Your task to perform on an android device: add a contact in the contacts app Image 0: 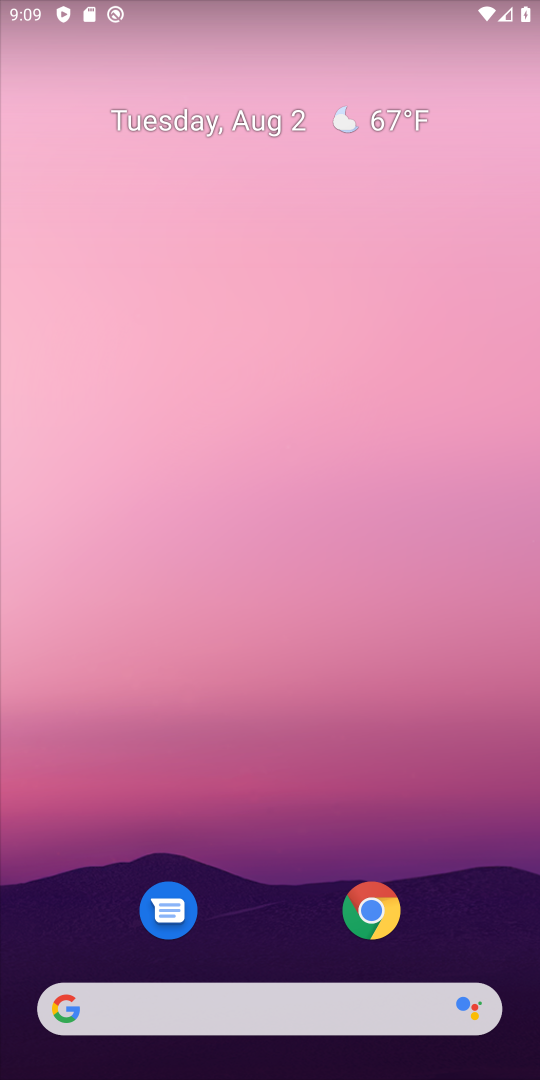
Step 0: drag from (273, 889) to (325, 279)
Your task to perform on an android device: add a contact in the contacts app Image 1: 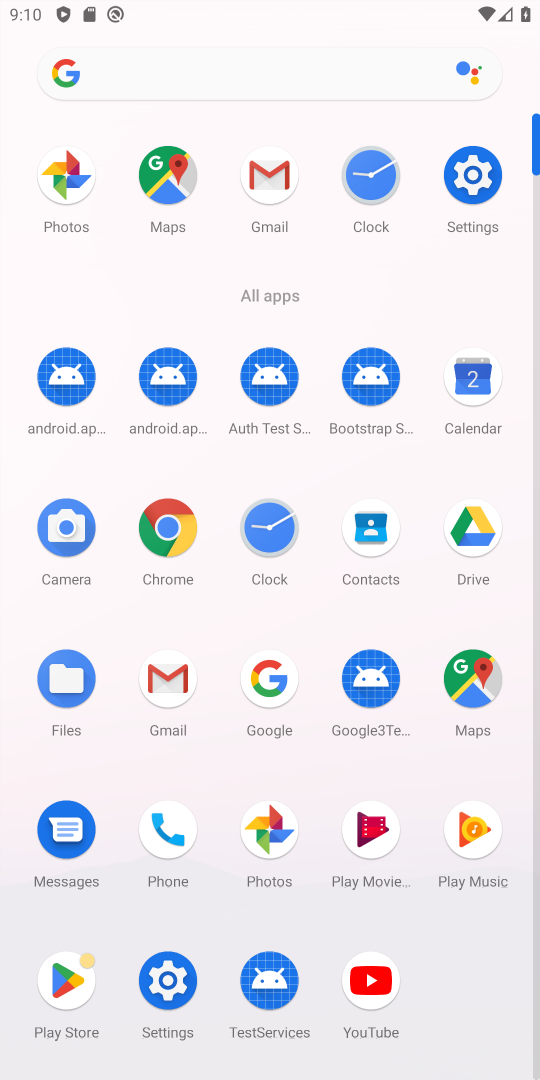
Step 1: click (169, 815)
Your task to perform on an android device: add a contact in the contacts app Image 2: 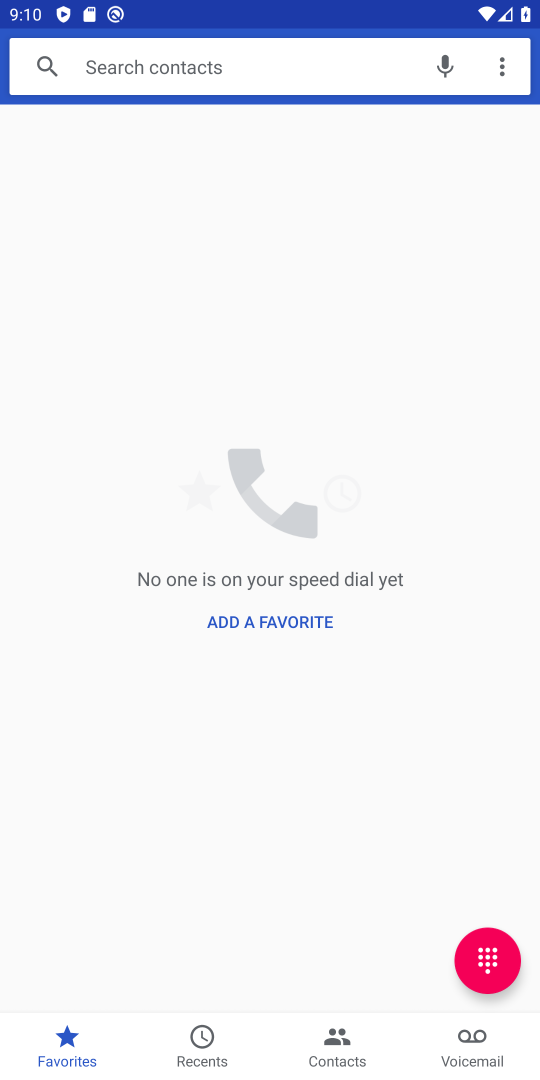
Step 2: click (255, 632)
Your task to perform on an android device: add a contact in the contacts app Image 3: 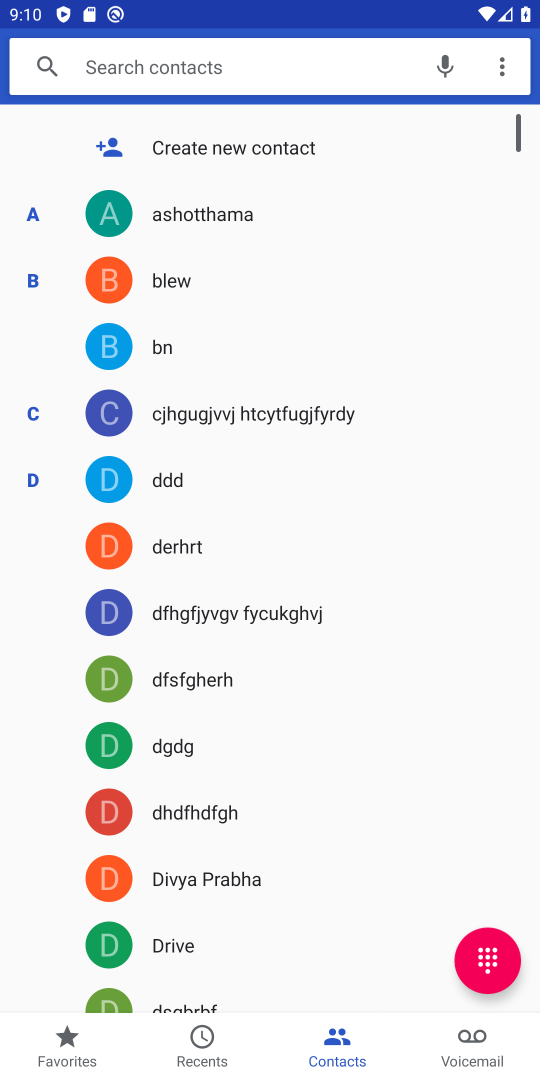
Step 3: click (181, 148)
Your task to perform on an android device: add a contact in the contacts app Image 4: 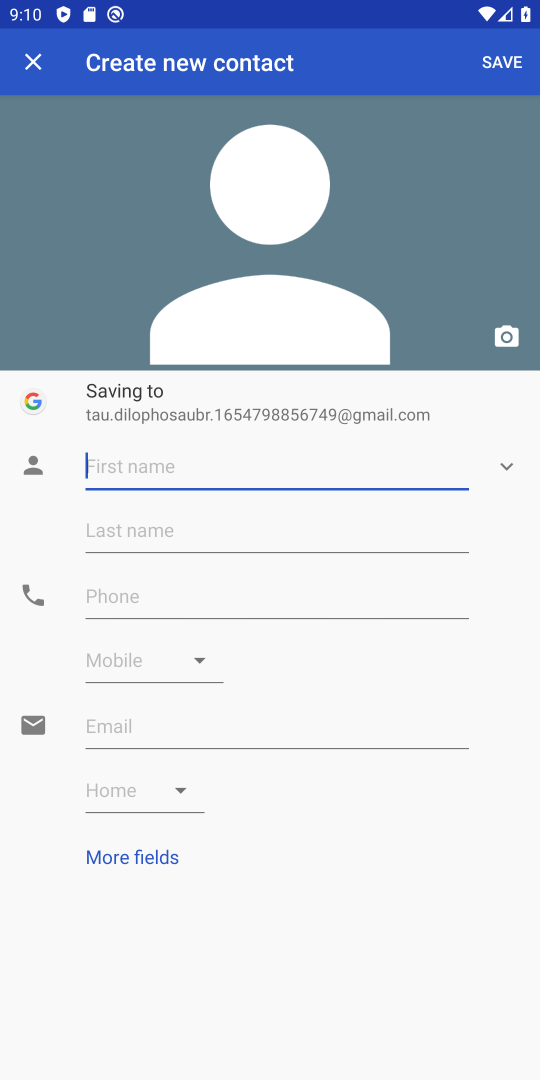
Step 4: click (196, 463)
Your task to perform on an android device: add a contact in the contacts app Image 5: 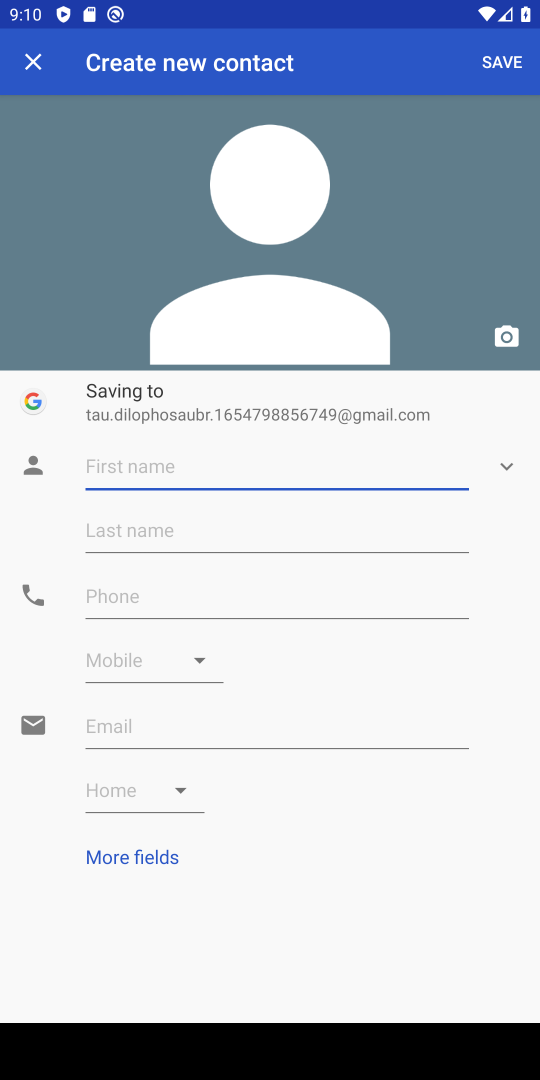
Step 5: type "hghghghghghgh "
Your task to perform on an android device: add a contact in the contacts app Image 6: 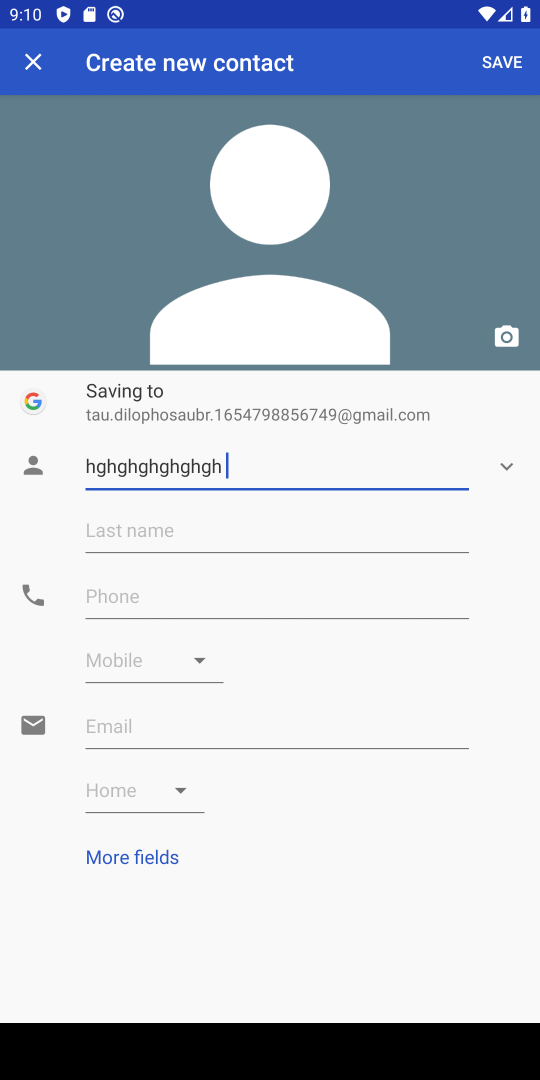
Step 6: click (120, 585)
Your task to perform on an android device: add a contact in the contacts app Image 7: 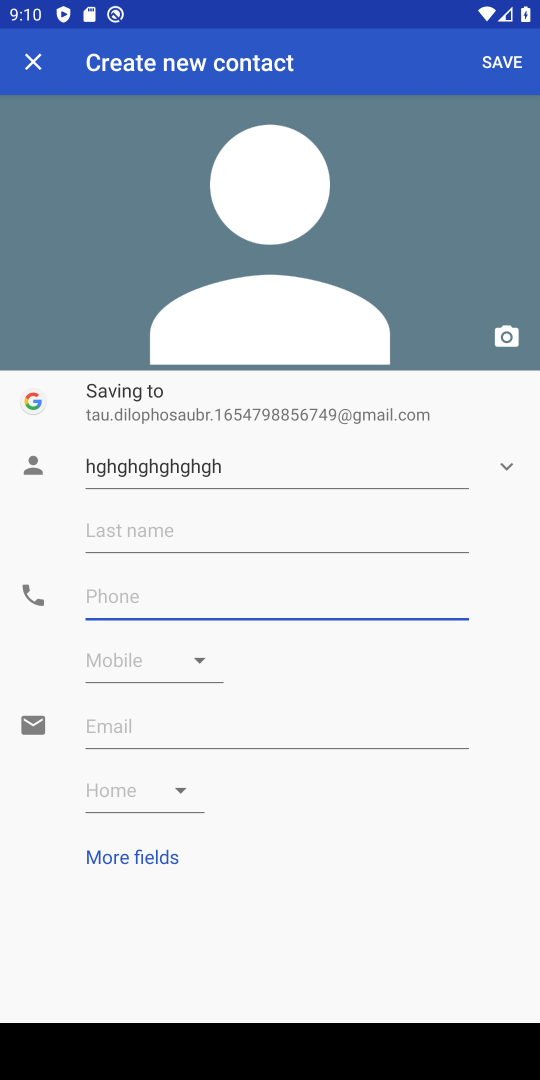
Step 7: type "87654321"
Your task to perform on an android device: add a contact in the contacts app Image 8: 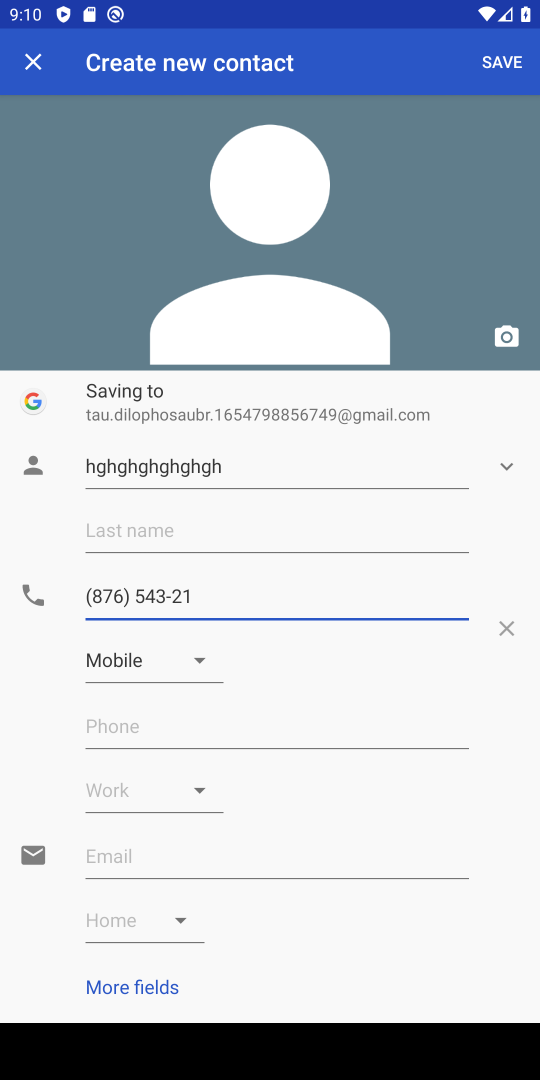
Step 8: click (511, 75)
Your task to perform on an android device: add a contact in the contacts app Image 9: 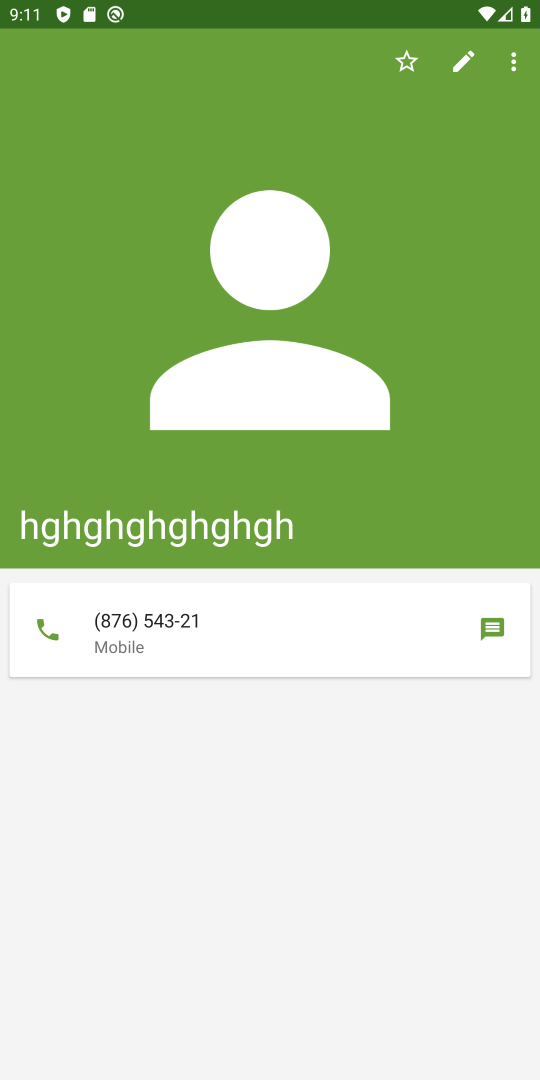
Step 9: task complete